Your task to perform on an android device: turn off javascript in the chrome app Image 0: 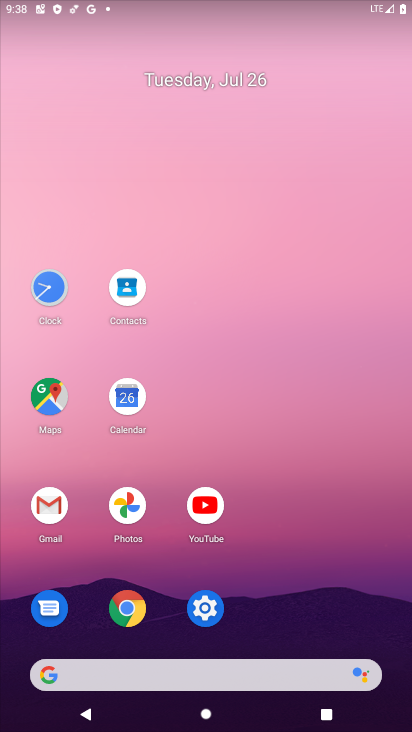
Step 0: click (124, 603)
Your task to perform on an android device: turn off javascript in the chrome app Image 1: 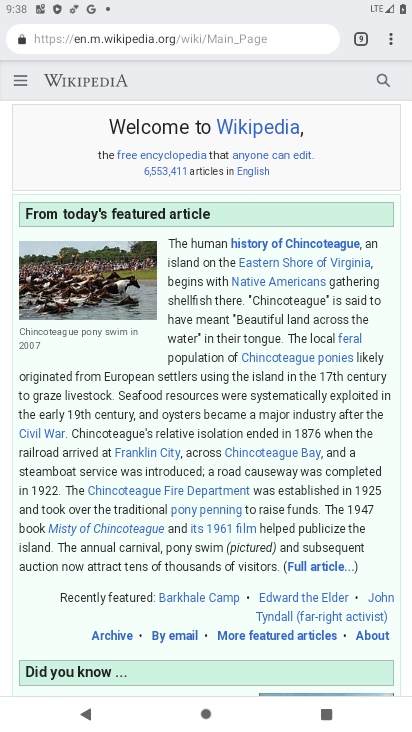
Step 1: click (388, 38)
Your task to perform on an android device: turn off javascript in the chrome app Image 2: 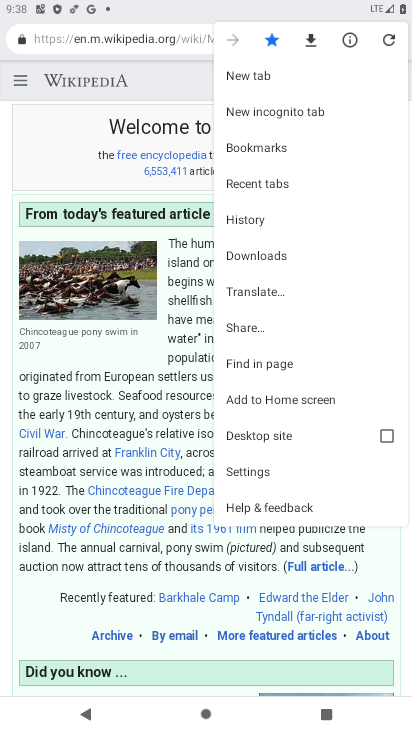
Step 2: click (237, 462)
Your task to perform on an android device: turn off javascript in the chrome app Image 3: 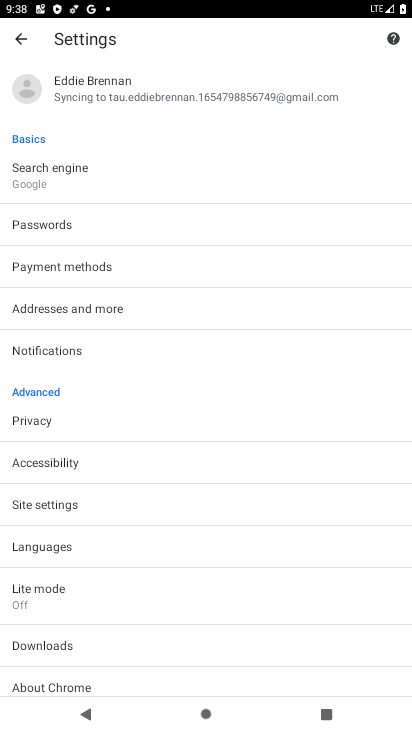
Step 3: click (40, 500)
Your task to perform on an android device: turn off javascript in the chrome app Image 4: 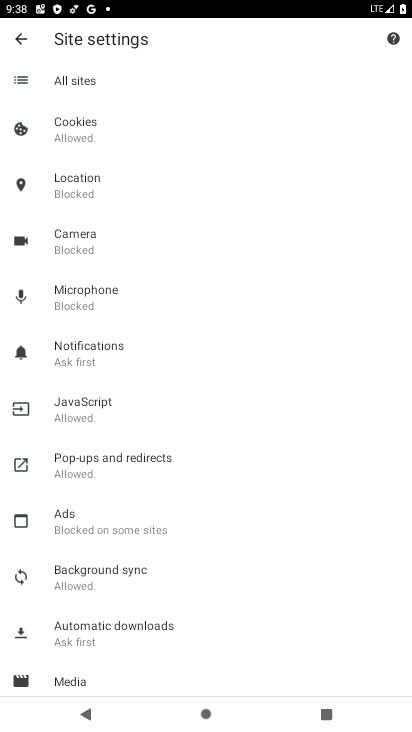
Step 4: click (90, 403)
Your task to perform on an android device: turn off javascript in the chrome app Image 5: 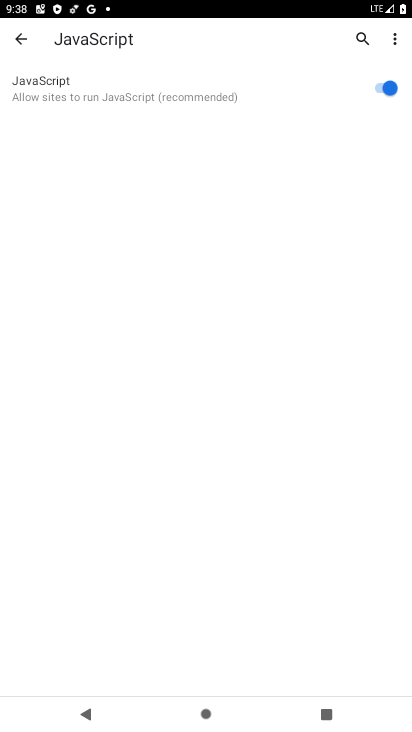
Step 5: click (387, 83)
Your task to perform on an android device: turn off javascript in the chrome app Image 6: 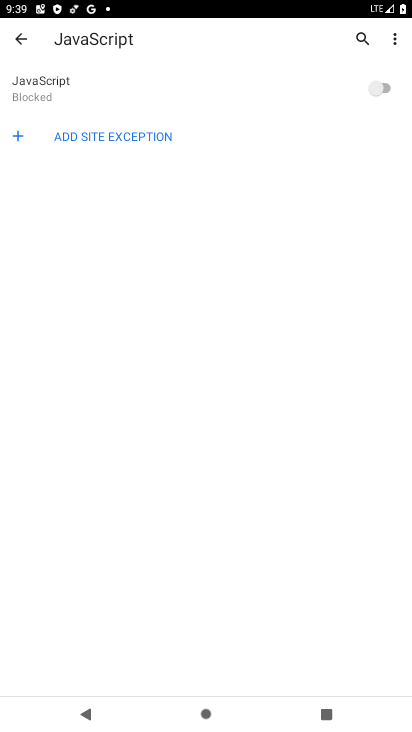
Step 6: task complete